Your task to perform on an android device: set the stopwatch Image 0: 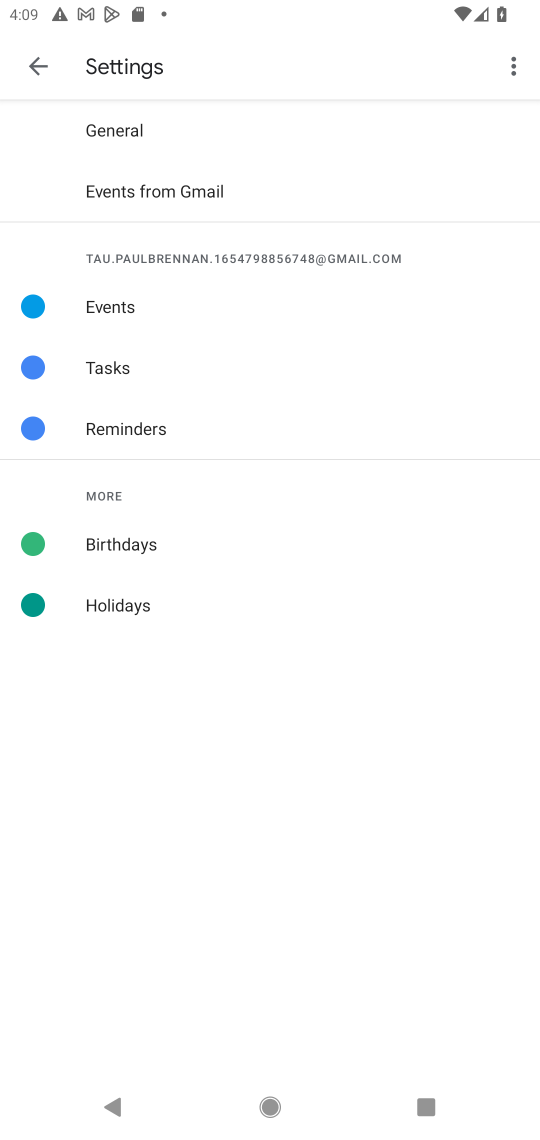
Step 0: press home button
Your task to perform on an android device: set the stopwatch Image 1: 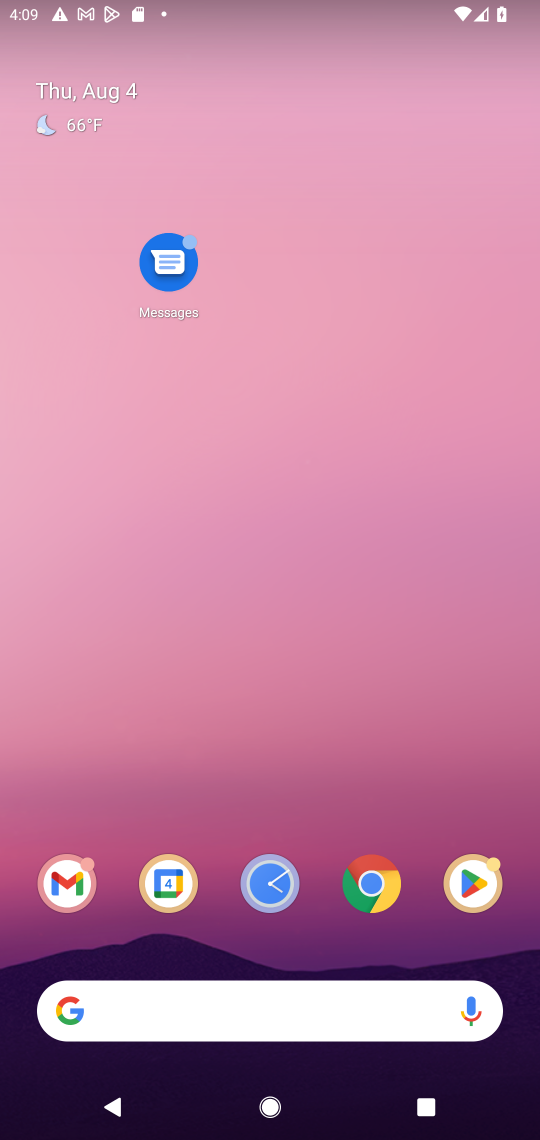
Step 1: click (285, 207)
Your task to perform on an android device: set the stopwatch Image 2: 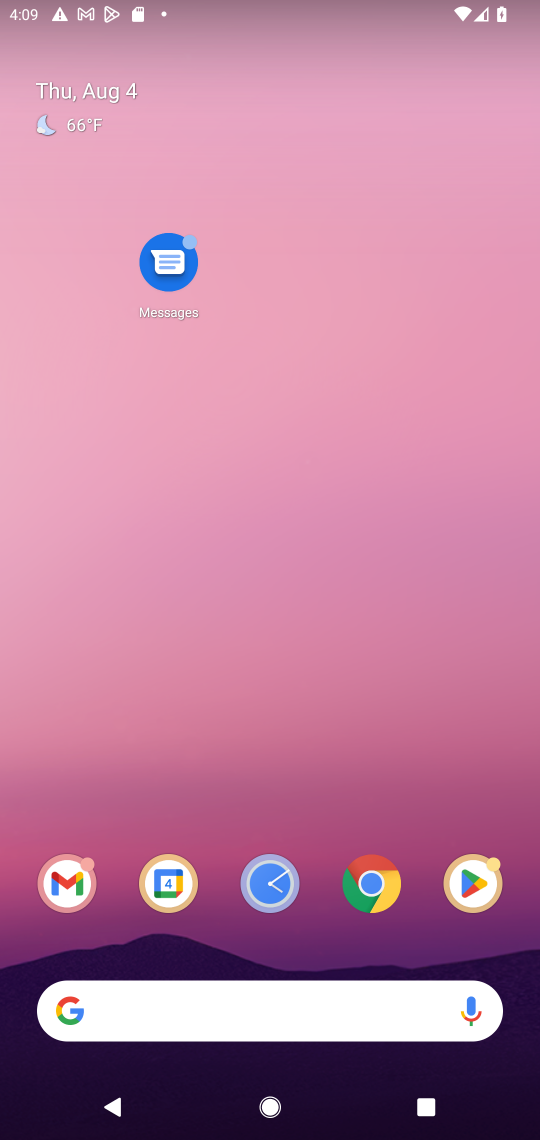
Step 2: drag from (315, 961) to (312, 31)
Your task to perform on an android device: set the stopwatch Image 3: 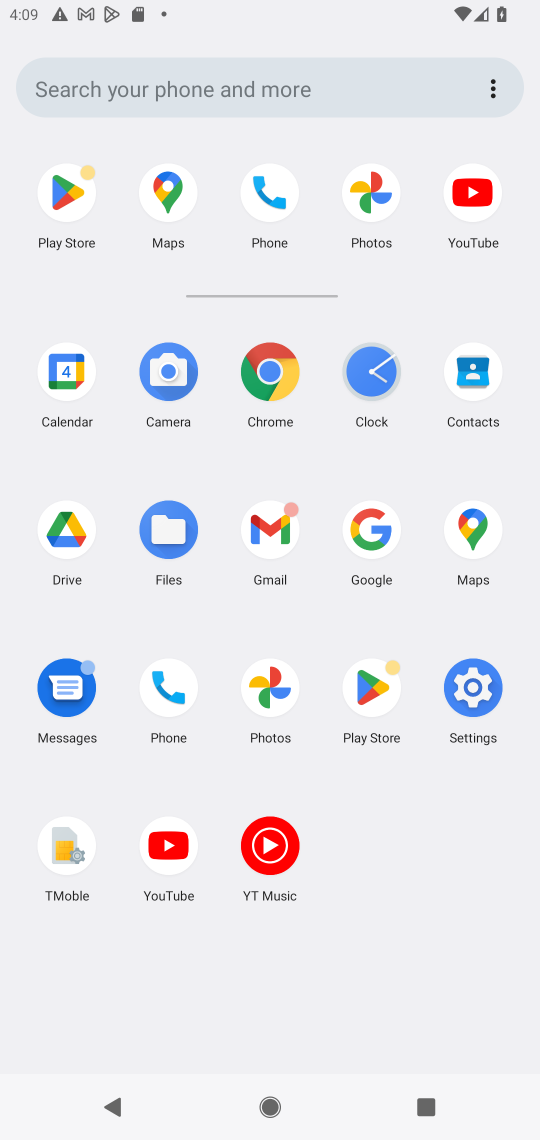
Step 3: click (369, 365)
Your task to perform on an android device: set the stopwatch Image 4: 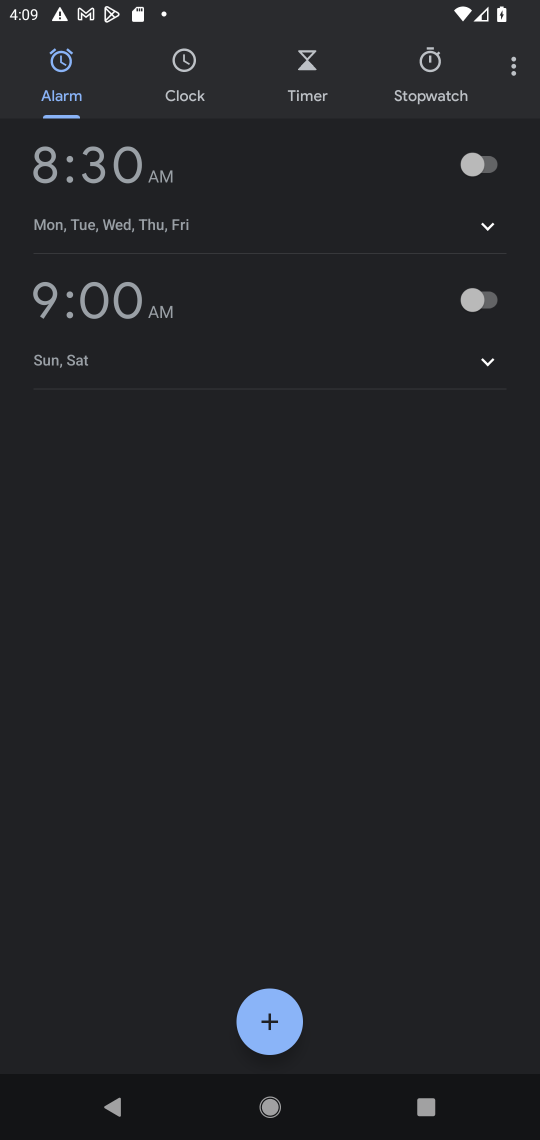
Step 4: click (433, 76)
Your task to perform on an android device: set the stopwatch Image 5: 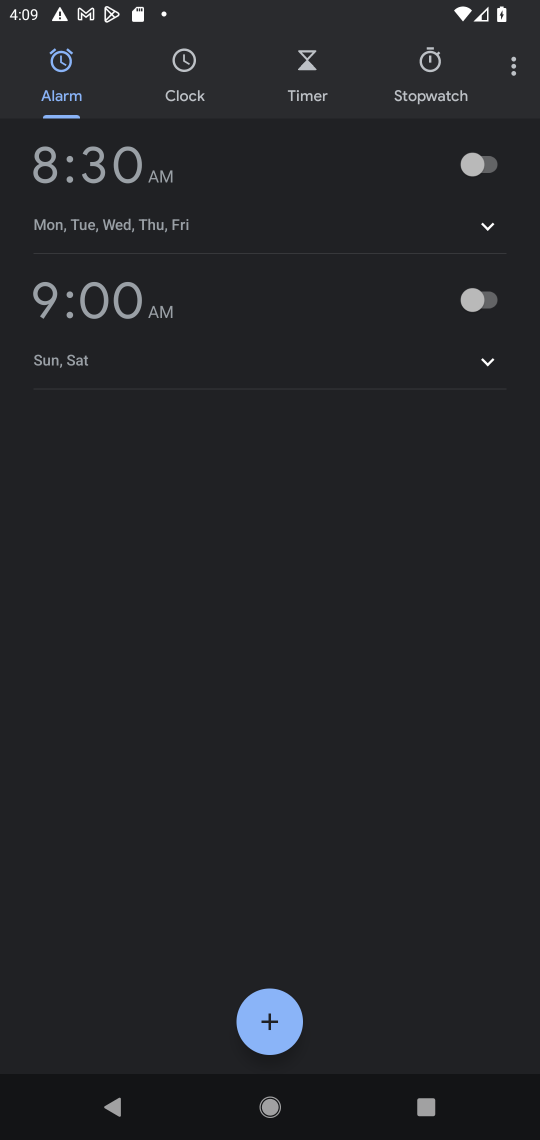
Step 5: click (426, 52)
Your task to perform on an android device: set the stopwatch Image 6: 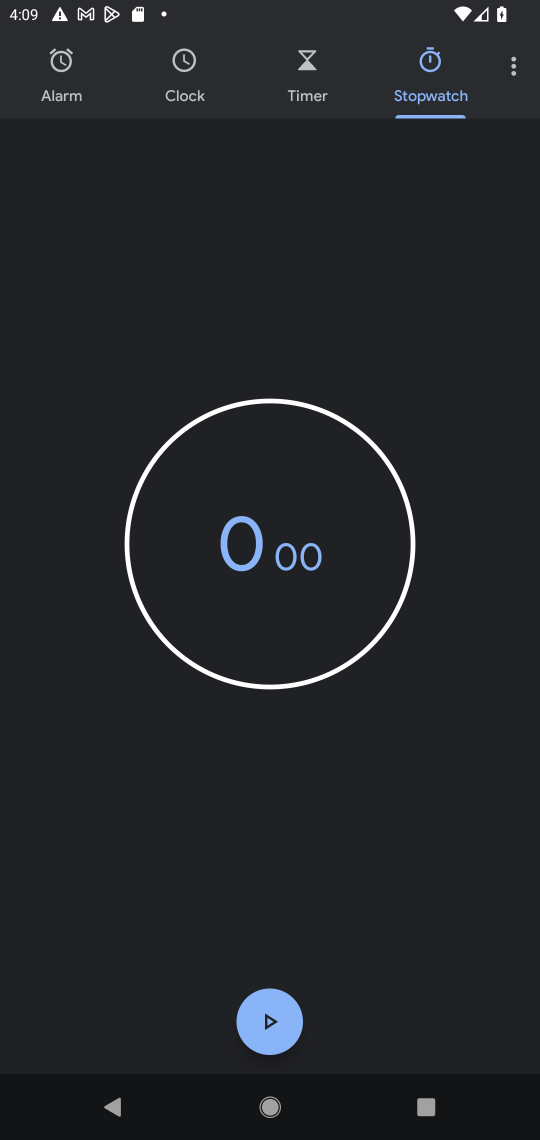
Step 6: click (273, 592)
Your task to perform on an android device: set the stopwatch Image 7: 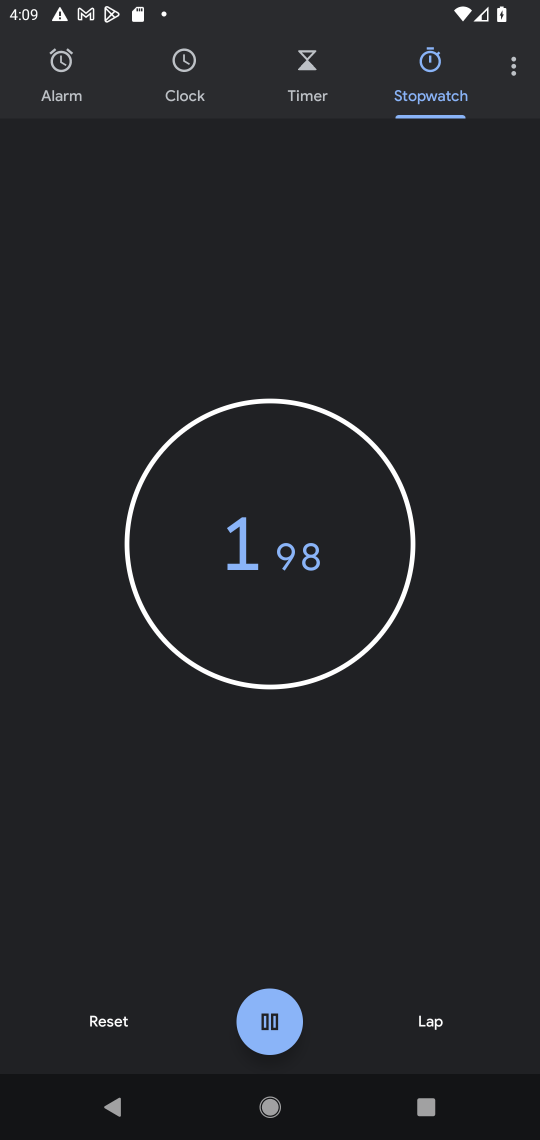
Step 7: type "676"
Your task to perform on an android device: set the stopwatch Image 8: 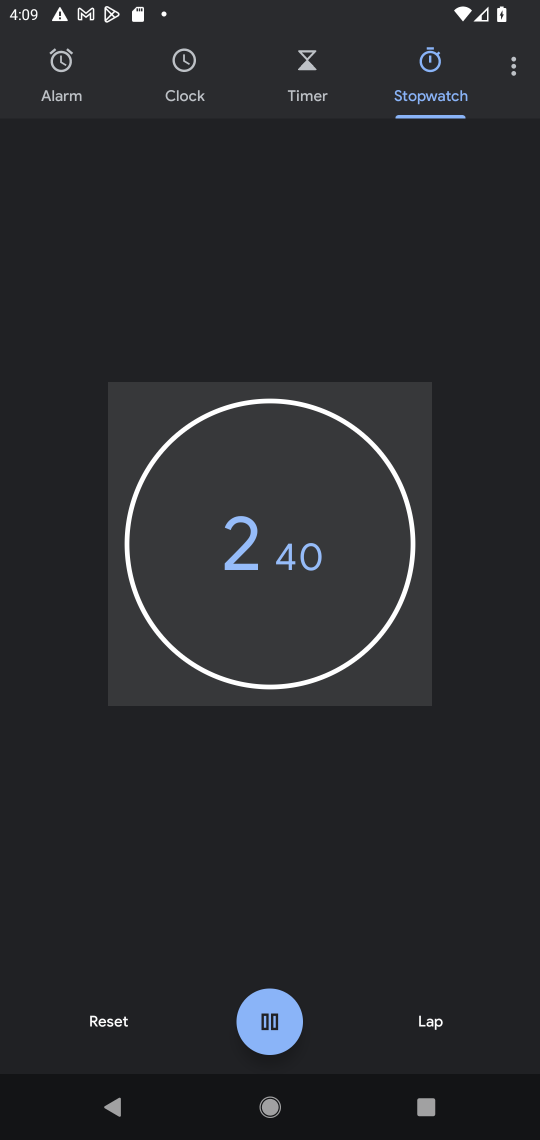
Step 8: type ""
Your task to perform on an android device: set the stopwatch Image 9: 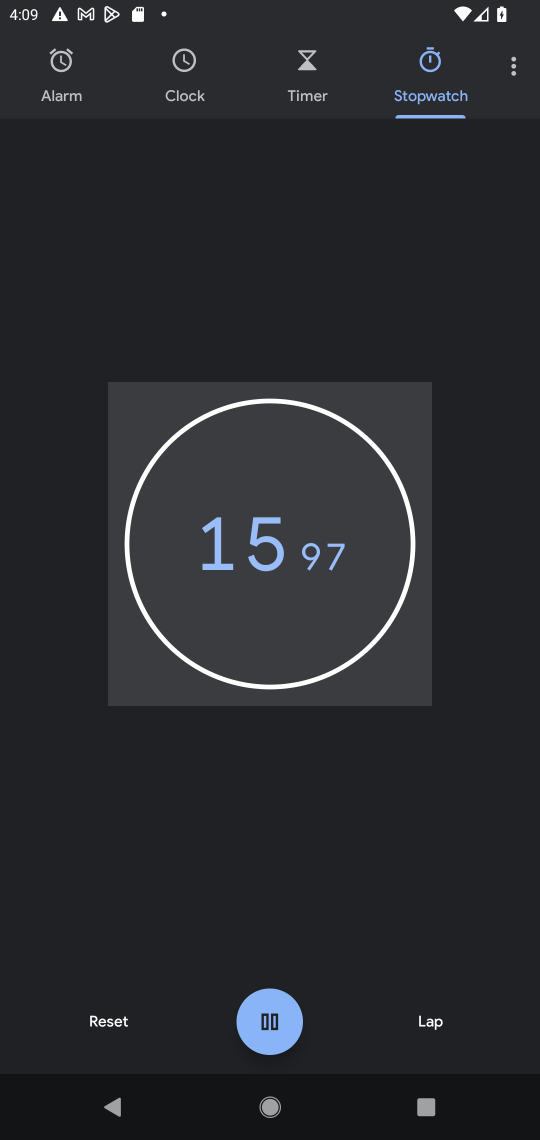
Step 9: task complete